Your task to perform on an android device: Go to privacy settings Image 0: 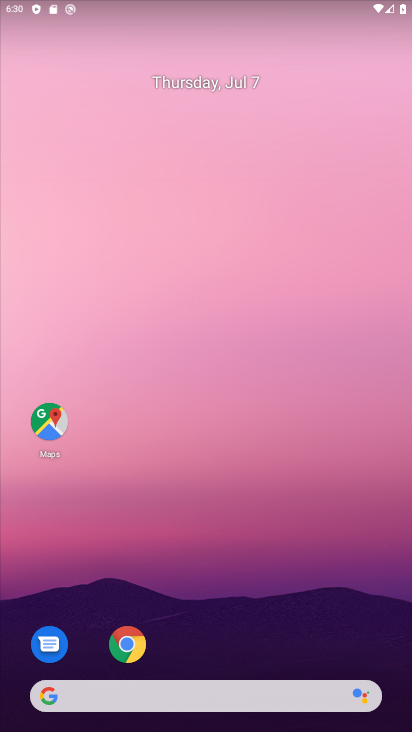
Step 0: press back button
Your task to perform on an android device: Go to privacy settings Image 1: 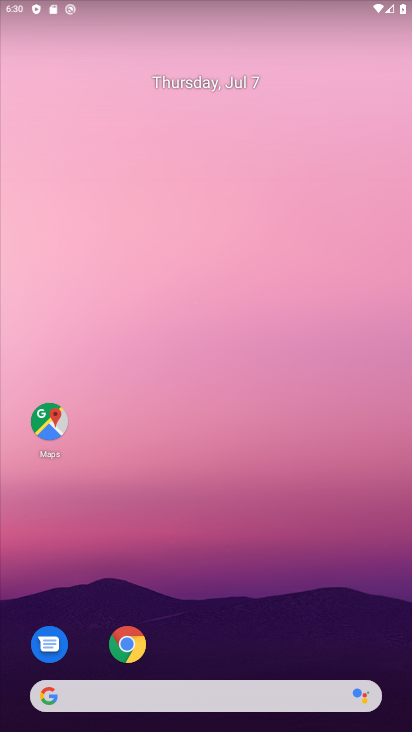
Step 1: drag from (180, 580) to (179, 27)
Your task to perform on an android device: Go to privacy settings Image 2: 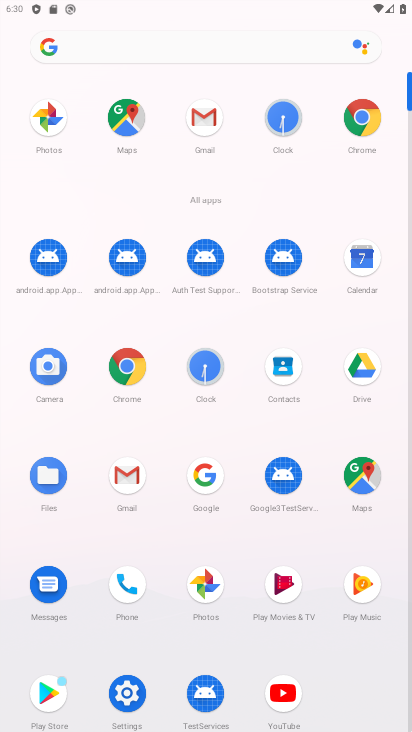
Step 2: click (120, 687)
Your task to perform on an android device: Go to privacy settings Image 3: 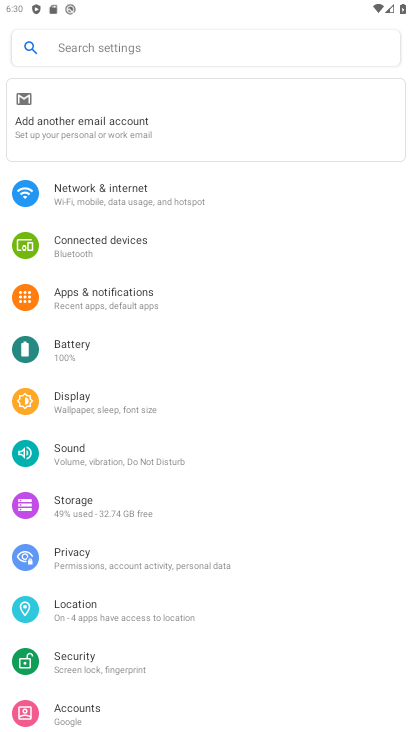
Step 3: click (75, 556)
Your task to perform on an android device: Go to privacy settings Image 4: 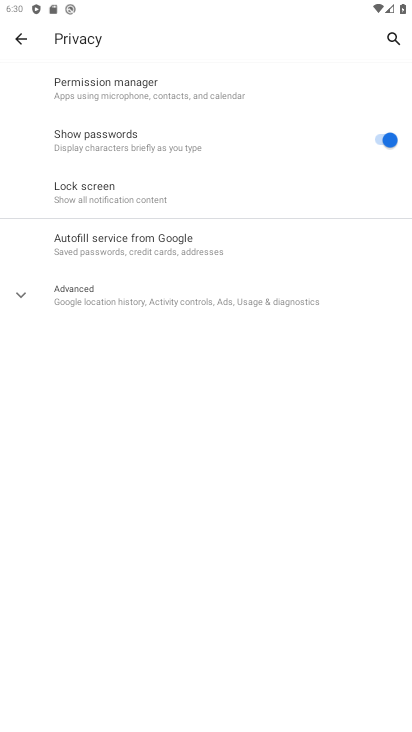
Step 4: task complete